Your task to perform on an android device: move an email to a new category in the gmail app Image 0: 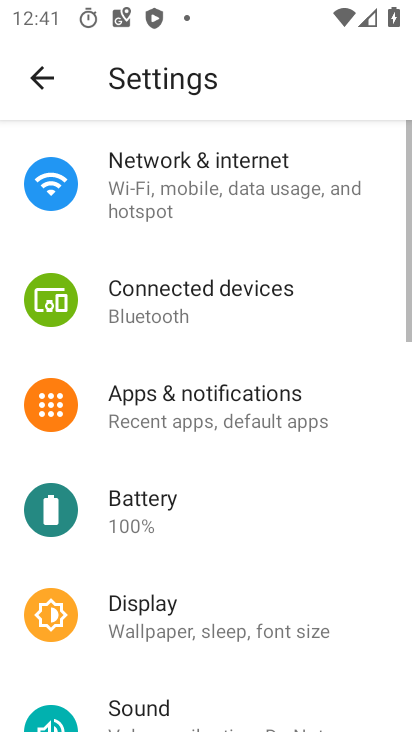
Step 0: press home button
Your task to perform on an android device: move an email to a new category in the gmail app Image 1: 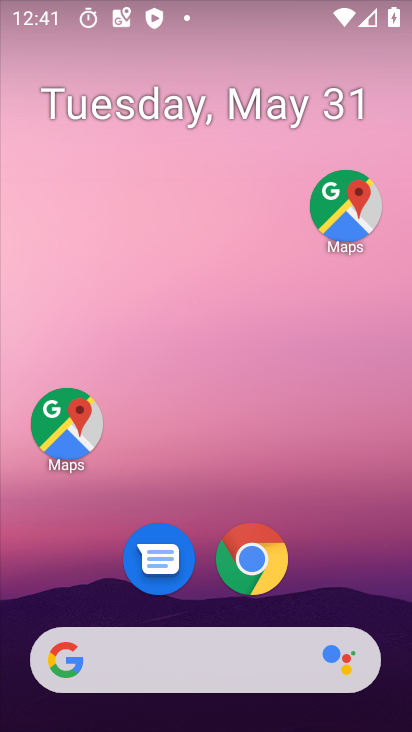
Step 1: drag from (330, 542) to (293, 97)
Your task to perform on an android device: move an email to a new category in the gmail app Image 2: 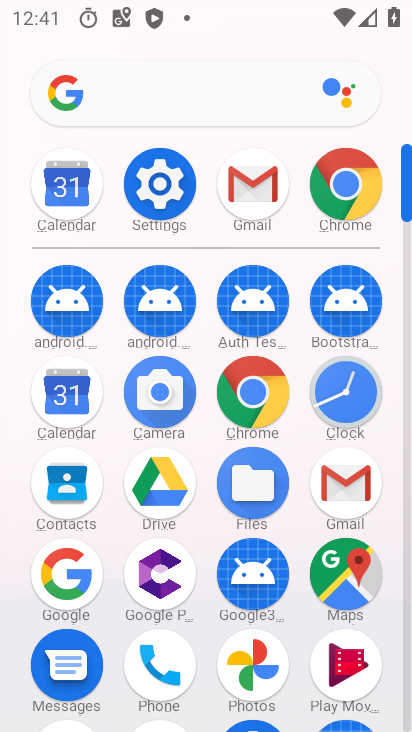
Step 2: click (269, 182)
Your task to perform on an android device: move an email to a new category in the gmail app Image 3: 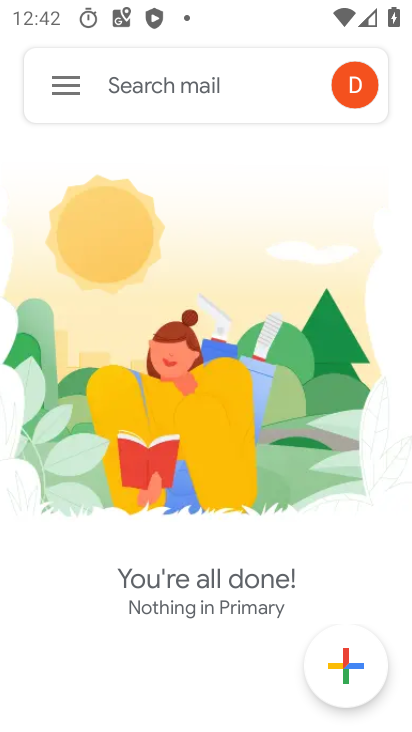
Step 3: click (69, 94)
Your task to perform on an android device: move an email to a new category in the gmail app Image 4: 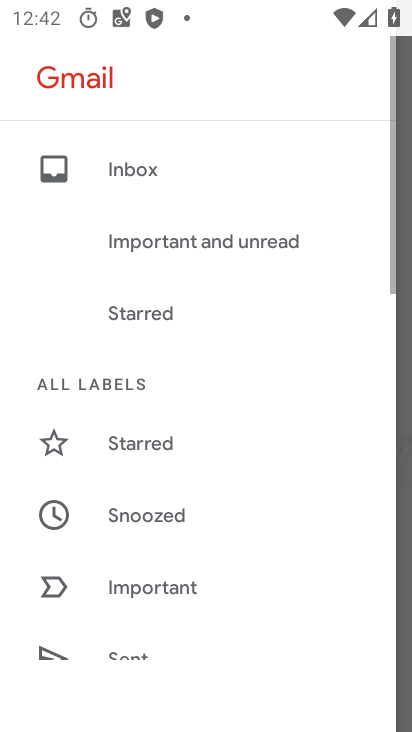
Step 4: drag from (189, 278) to (196, 126)
Your task to perform on an android device: move an email to a new category in the gmail app Image 5: 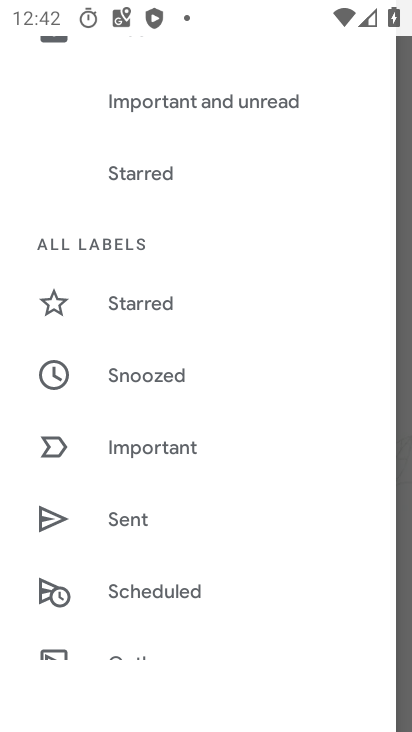
Step 5: drag from (156, 498) to (216, 144)
Your task to perform on an android device: move an email to a new category in the gmail app Image 6: 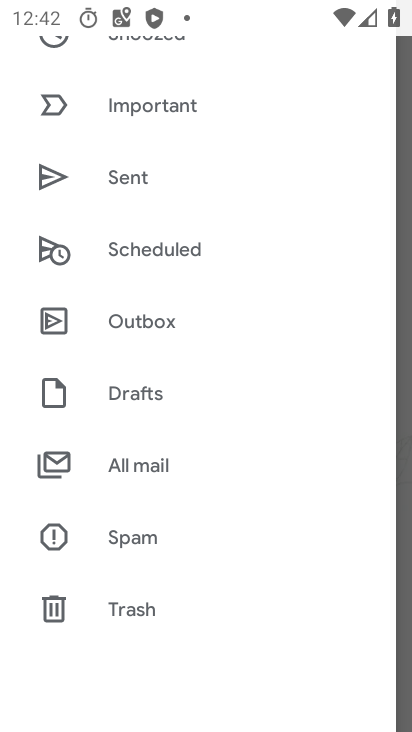
Step 6: click (135, 469)
Your task to perform on an android device: move an email to a new category in the gmail app Image 7: 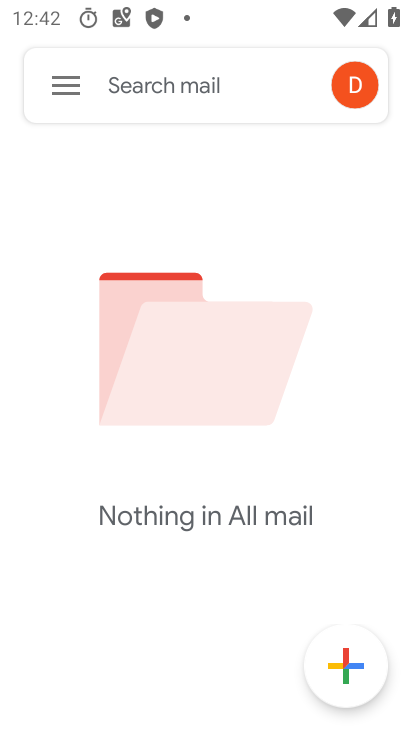
Step 7: task complete